Your task to perform on an android device: open app "Pandora - Music & Podcasts" (install if not already installed) and enter user name: "creator@yahoo.com" and password: "valuable" Image 0: 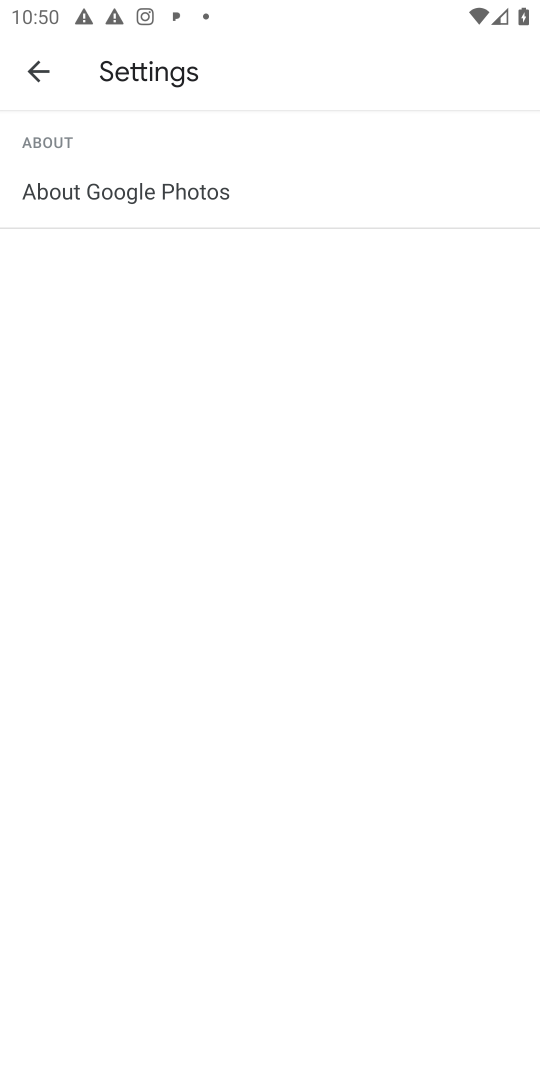
Step 0: press home button
Your task to perform on an android device: open app "Pandora - Music & Podcasts" (install if not already installed) and enter user name: "creator@yahoo.com" and password: "valuable" Image 1: 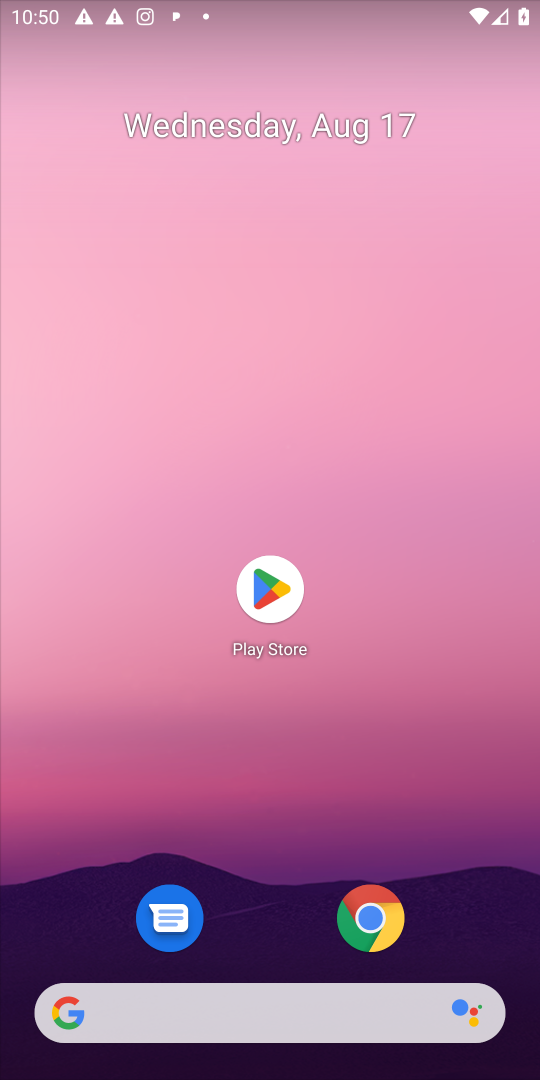
Step 1: click (270, 579)
Your task to perform on an android device: open app "Pandora - Music & Podcasts" (install if not already installed) and enter user name: "creator@yahoo.com" and password: "valuable" Image 2: 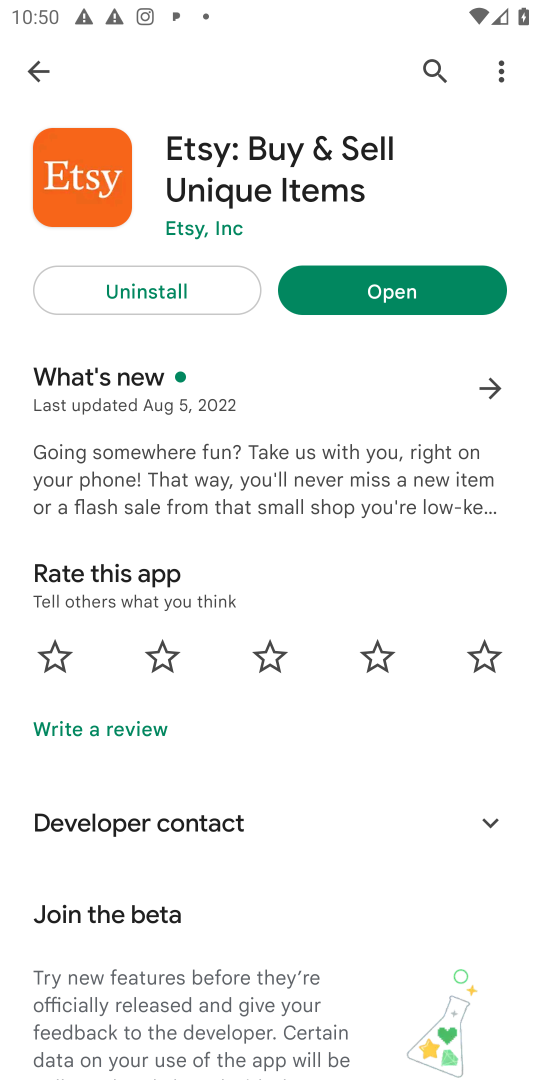
Step 2: click (425, 70)
Your task to perform on an android device: open app "Pandora - Music & Podcasts" (install if not already installed) and enter user name: "creator@yahoo.com" and password: "valuable" Image 3: 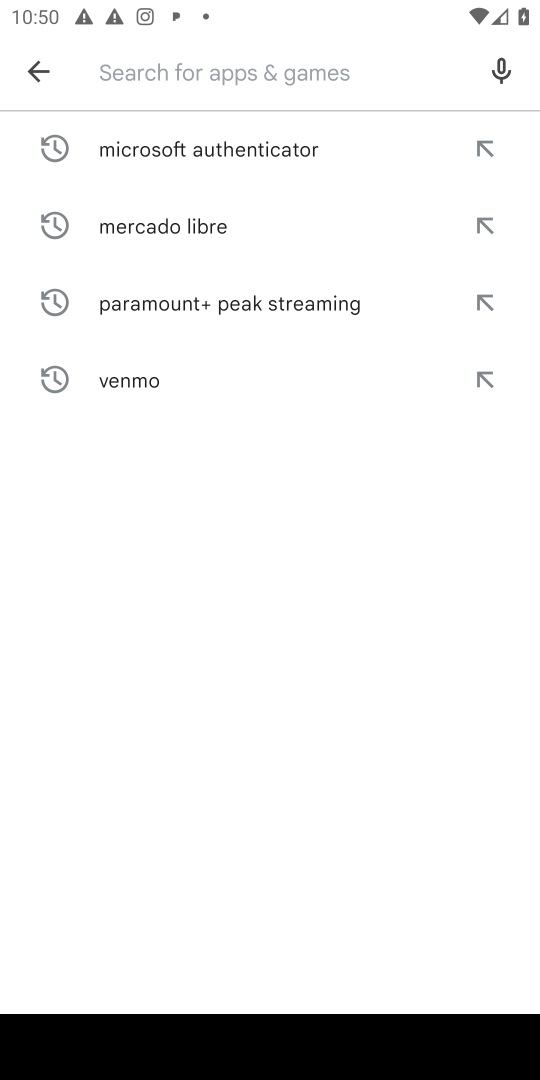
Step 3: type "Pandora - Music & Podcasts"
Your task to perform on an android device: open app "Pandora - Music & Podcasts" (install if not already installed) and enter user name: "creator@yahoo.com" and password: "valuable" Image 4: 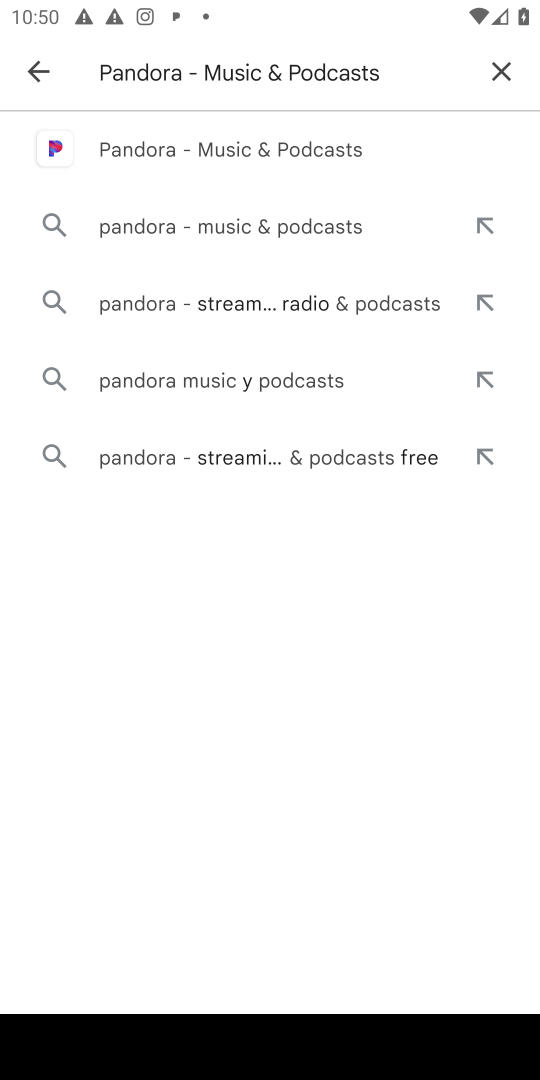
Step 4: click (233, 149)
Your task to perform on an android device: open app "Pandora - Music & Podcasts" (install if not already installed) and enter user name: "creator@yahoo.com" and password: "valuable" Image 5: 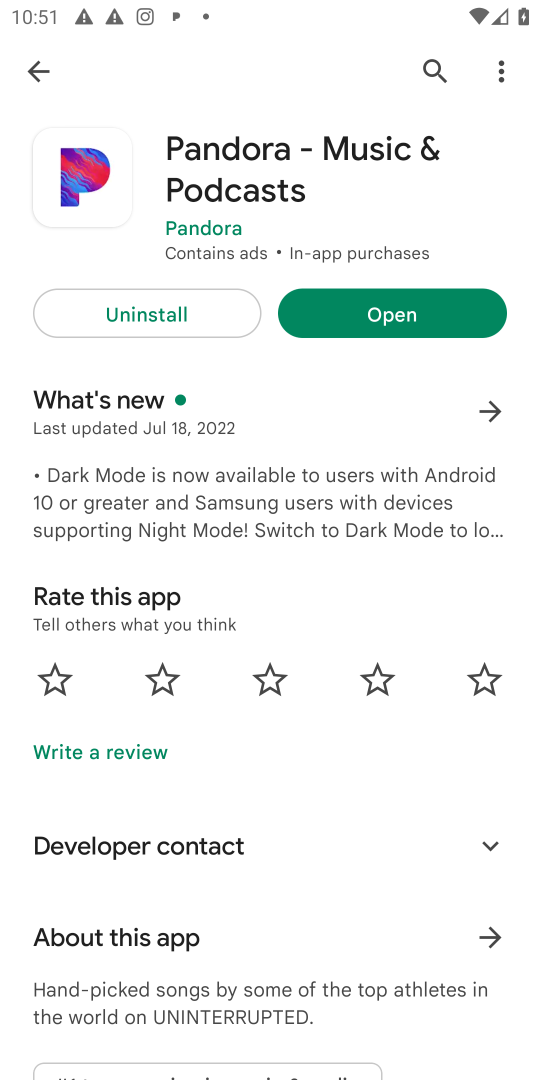
Step 5: click (378, 329)
Your task to perform on an android device: open app "Pandora - Music & Podcasts" (install if not already installed) and enter user name: "creator@yahoo.com" and password: "valuable" Image 6: 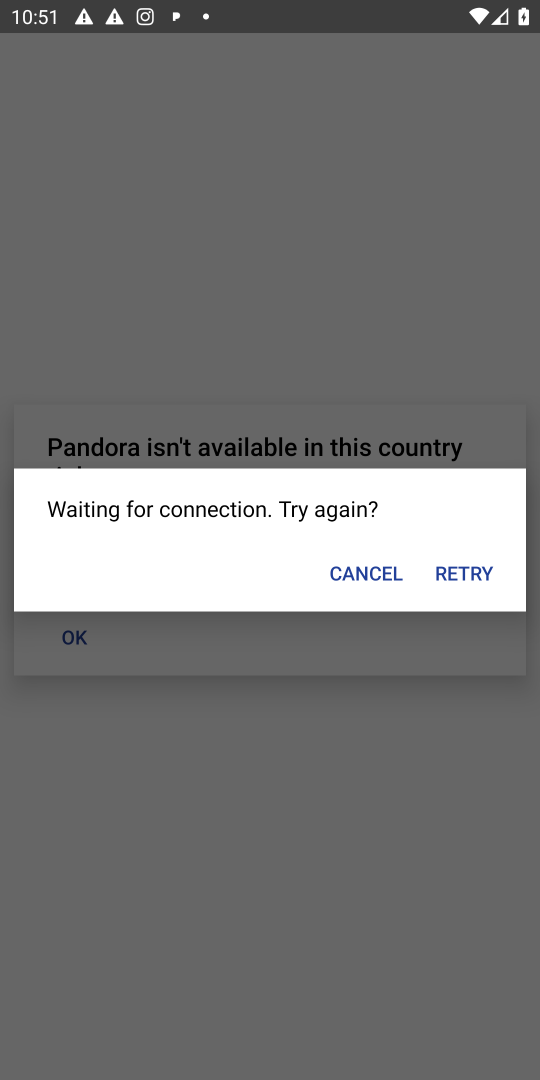
Step 6: task complete